Your task to perform on an android device: change notifications settings Image 0: 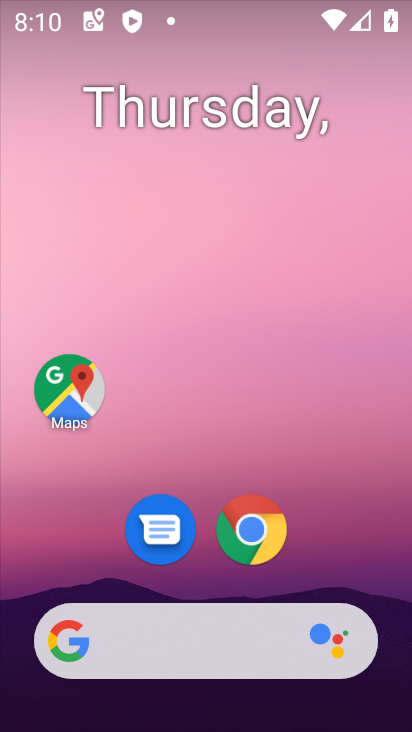
Step 0: drag from (211, 582) to (209, 60)
Your task to perform on an android device: change notifications settings Image 1: 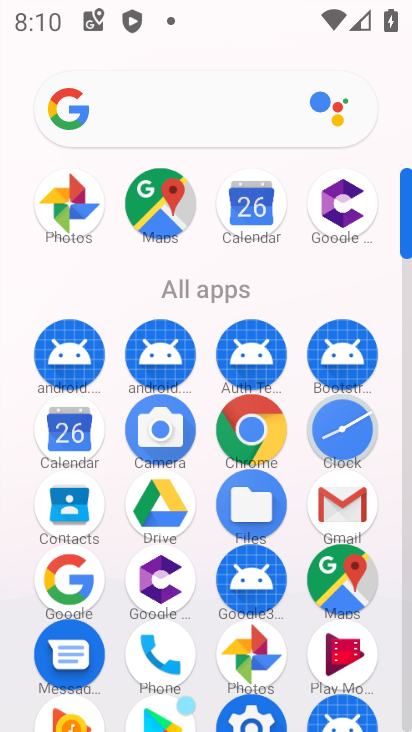
Step 1: drag from (185, 689) to (202, 214)
Your task to perform on an android device: change notifications settings Image 2: 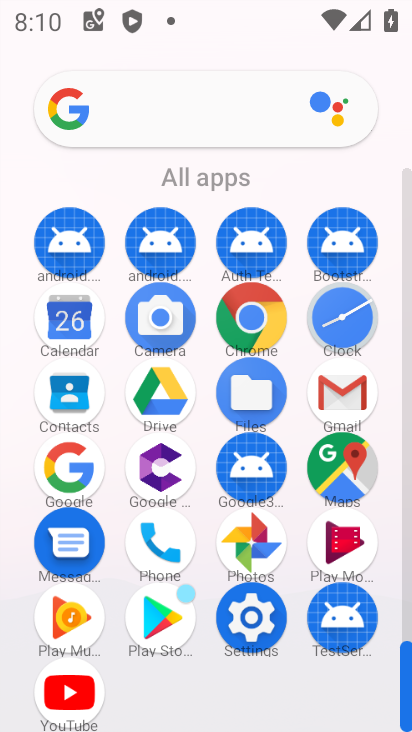
Step 2: click (258, 613)
Your task to perform on an android device: change notifications settings Image 3: 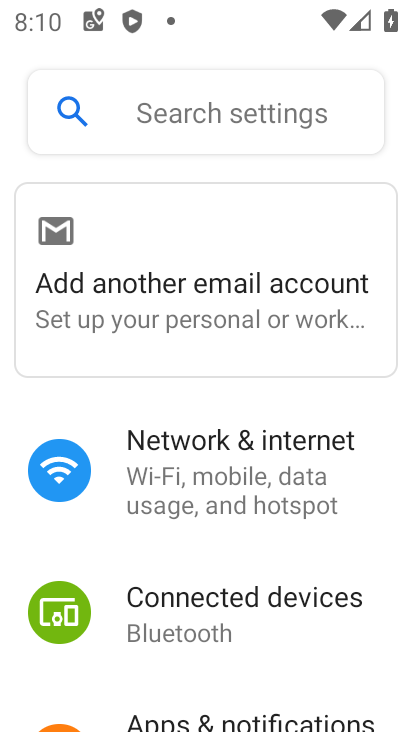
Step 3: drag from (242, 677) to (242, 412)
Your task to perform on an android device: change notifications settings Image 4: 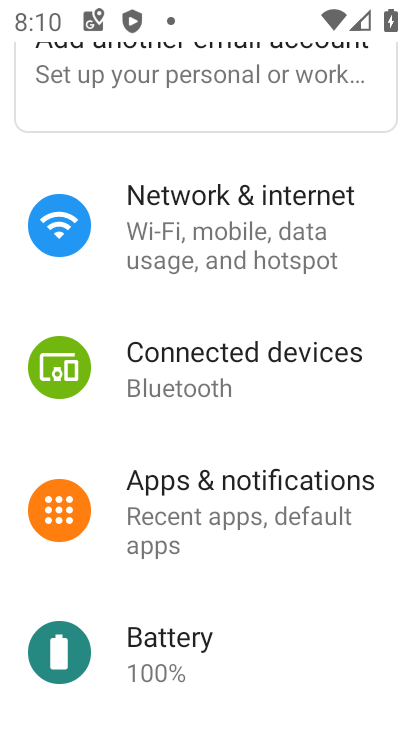
Step 4: click (208, 496)
Your task to perform on an android device: change notifications settings Image 5: 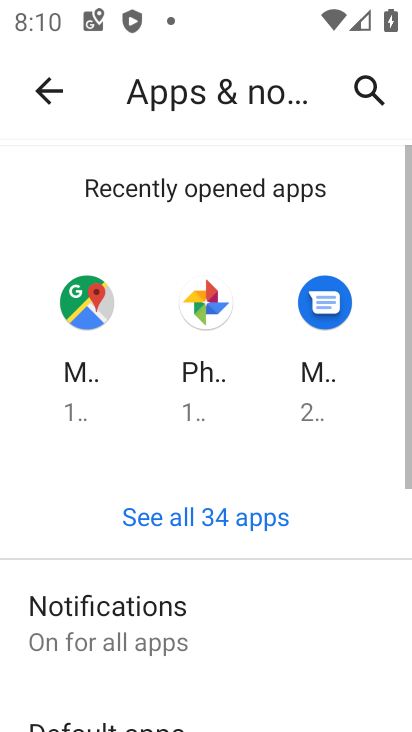
Step 5: drag from (252, 657) to (224, 302)
Your task to perform on an android device: change notifications settings Image 6: 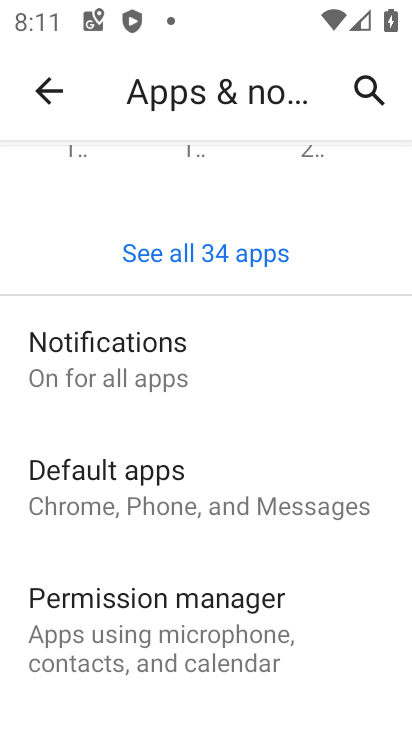
Step 6: click (92, 377)
Your task to perform on an android device: change notifications settings Image 7: 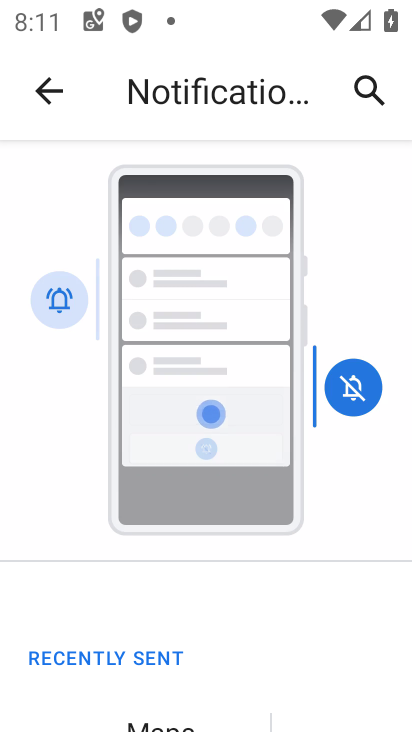
Step 7: drag from (318, 660) to (293, 100)
Your task to perform on an android device: change notifications settings Image 8: 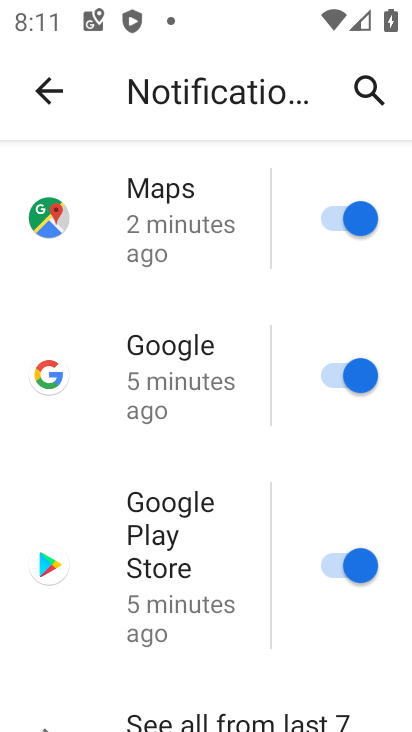
Step 8: drag from (229, 647) to (217, 184)
Your task to perform on an android device: change notifications settings Image 9: 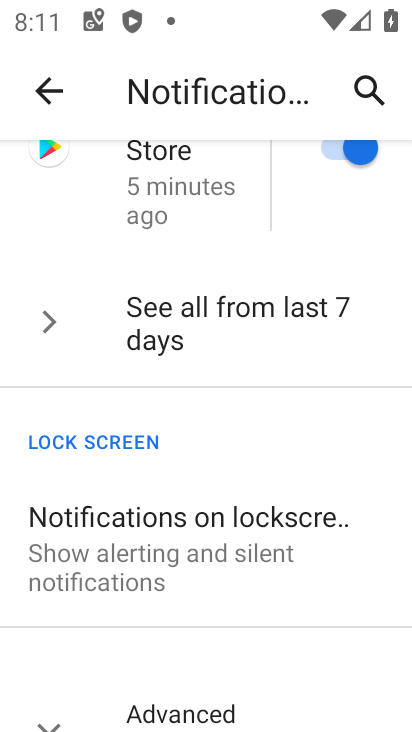
Step 9: drag from (104, 574) to (139, 231)
Your task to perform on an android device: change notifications settings Image 10: 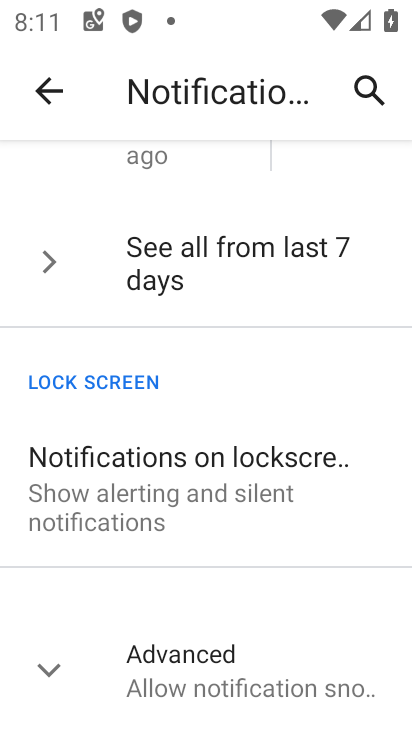
Step 10: click (135, 501)
Your task to perform on an android device: change notifications settings Image 11: 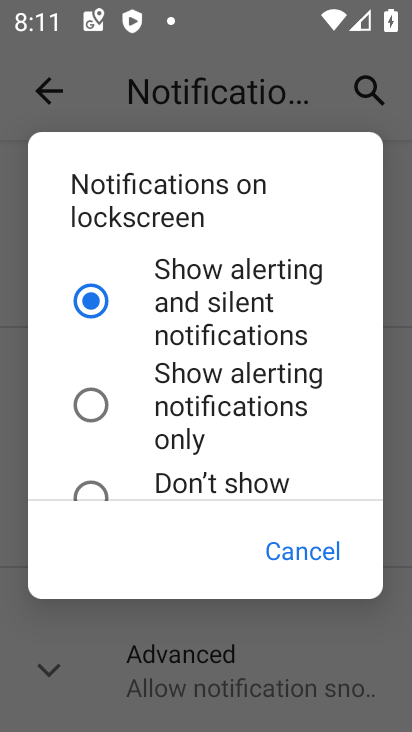
Step 11: click (81, 412)
Your task to perform on an android device: change notifications settings Image 12: 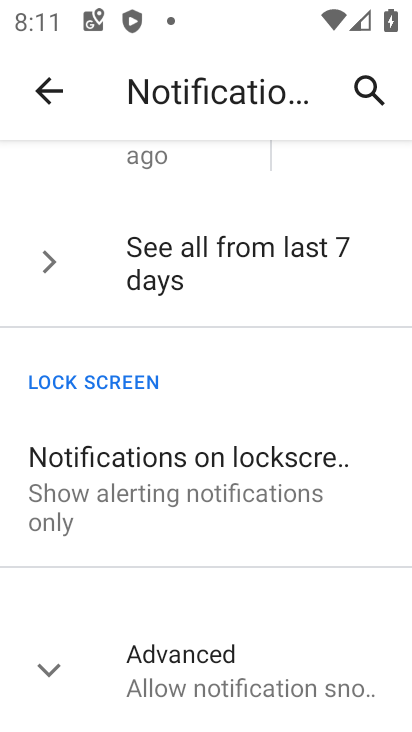
Step 12: task complete